Your task to perform on an android device: toggle data saver in the chrome app Image 0: 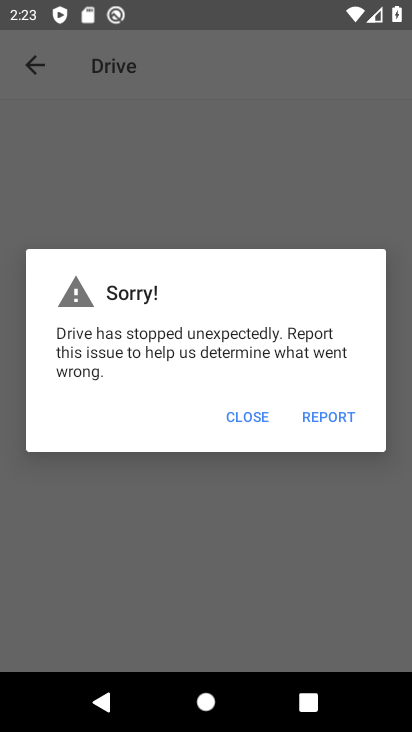
Step 0: press home button
Your task to perform on an android device: toggle data saver in the chrome app Image 1: 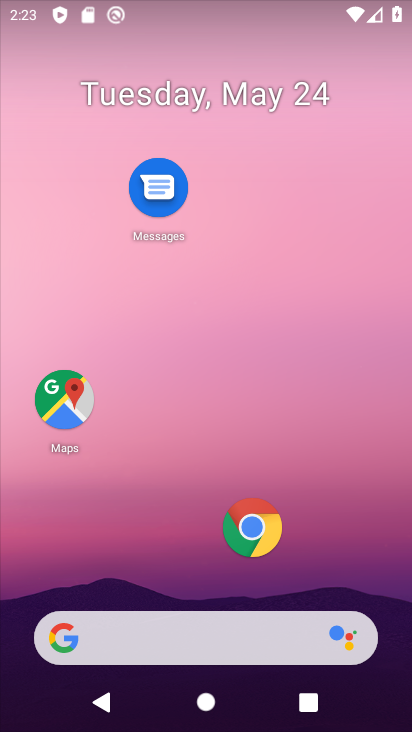
Step 1: click (253, 526)
Your task to perform on an android device: toggle data saver in the chrome app Image 2: 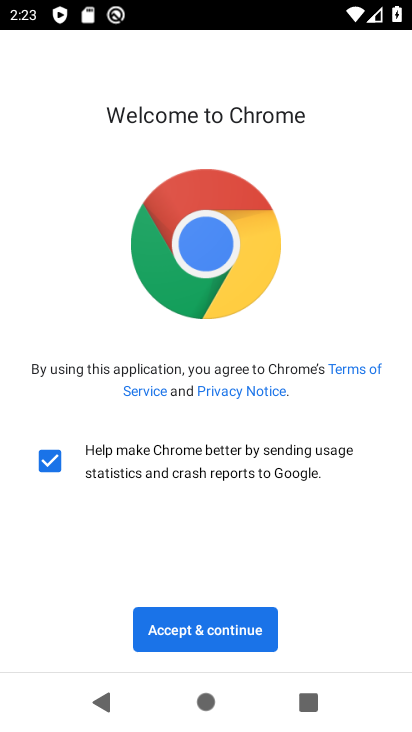
Step 2: click (168, 645)
Your task to perform on an android device: toggle data saver in the chrome app Image 3: 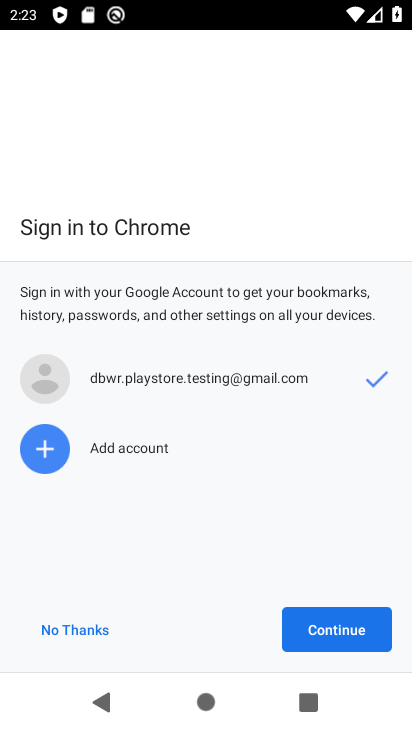
Step 3: click (329, 620)
Your task to perform on an android device: toggle data saver in the chrome app Image 4: 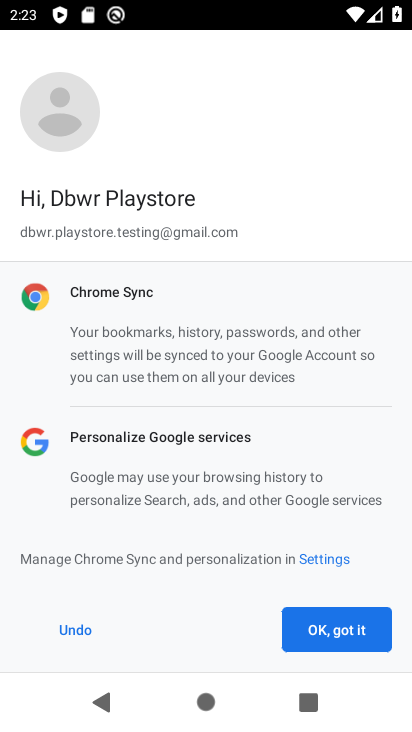
Step 4: click (326, 631)
Your task to perform on an android device: toggle data saver in the chrome app Image 5: 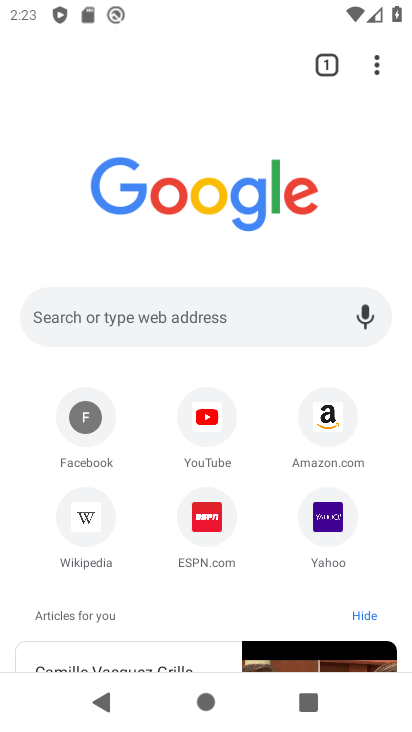
Step 5: click (379, 60)
Your task to perform on an android device: toggle data saver in the chrome app Image 6: 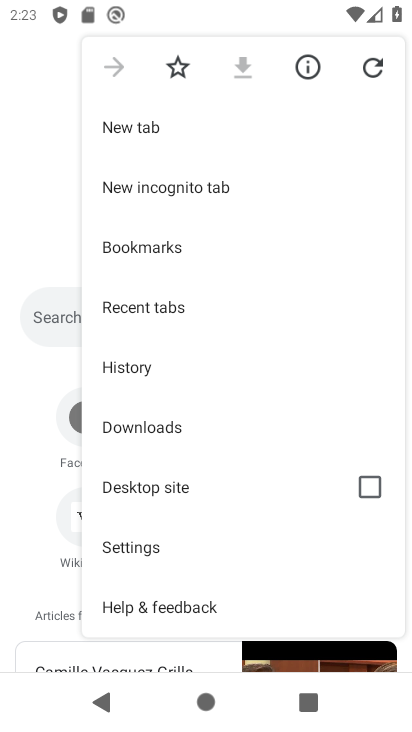
Step 6: click (111, 544)
Your task to perform on an android device: toggle data saver in the chrome app Image 7: 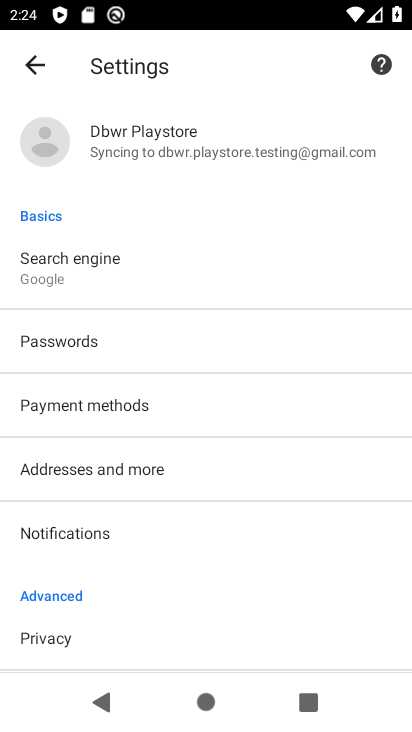
Step 7: drag from (131, 520) to (153, 241)
Your task to perform on an android device: toggle data saver in the chrome app Image 8: 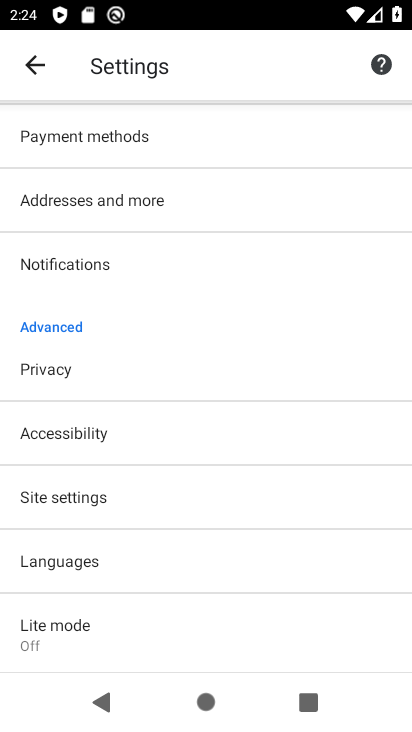
Step 8: click (42, 625)
Your task to perform on an android device: toggle data saver in the chrome app Image 9: 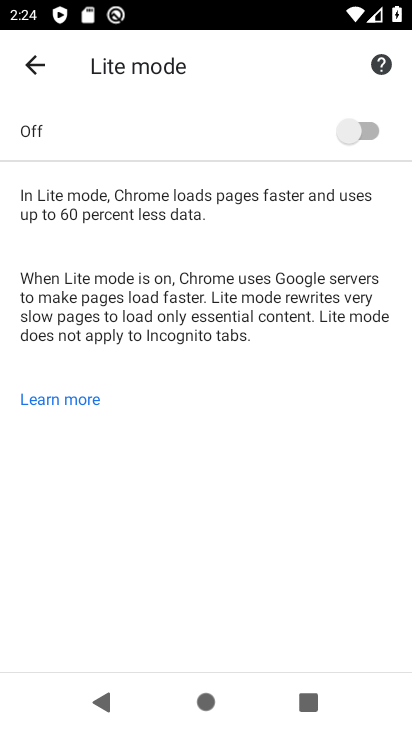
Step 9: click (367, 132)
Your task to perform on an android device: toggle data saver in the chrome app Image 10: 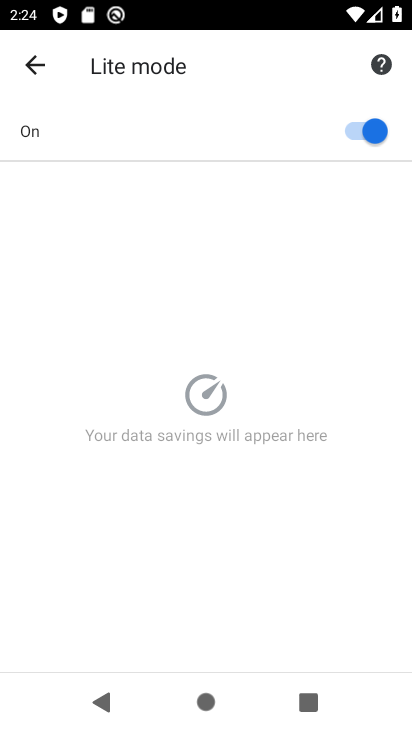
Step 10: task complete